Your task to perform on an android device: search for starred emails in the gmail app Image 0: 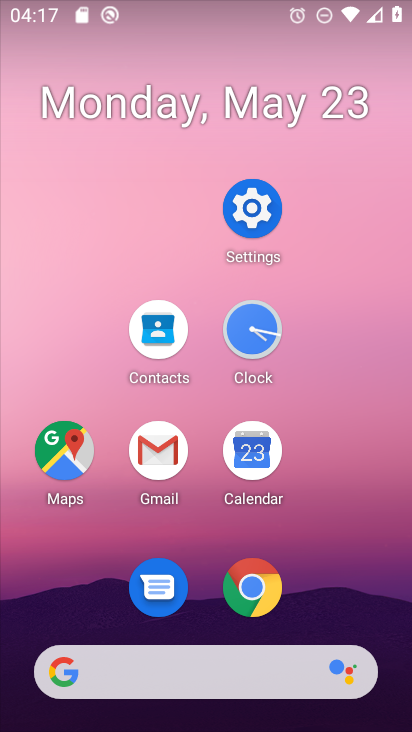
Step 0: click (150, 458)
Your task to perform on an android device: search for starred emails in the gmail app Image 1: 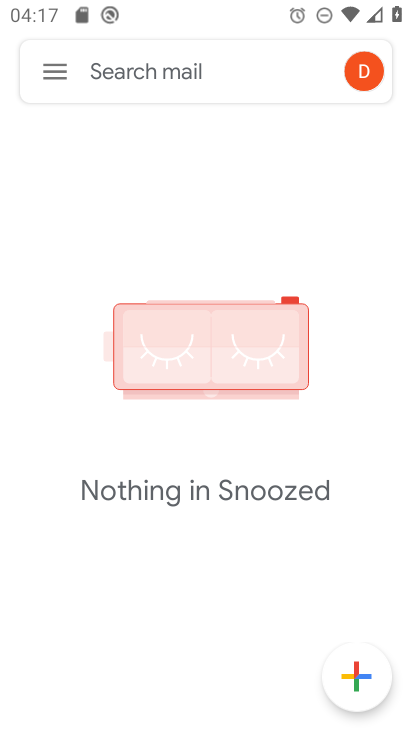
Step 1: click (68, 84)
Your task to perform on an android device: search for starred emails in the gmail app Image 2: 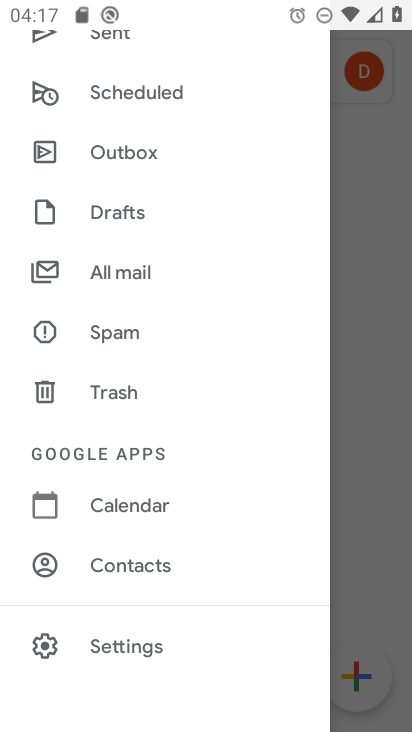
Step 2: drag from (119, 493) to (148, 362)
Your task to perform on an android device: search for starred emails in the gmail app Image 3: 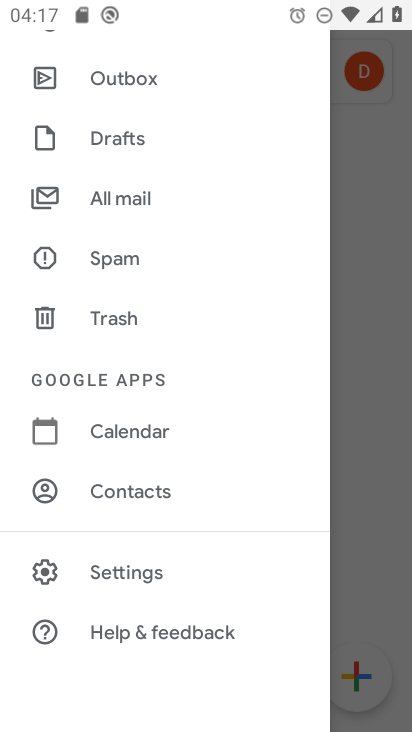
Step 3: drag from (119, 95) to (141, 692)
Your task to perform on an android device: search for starred emails in the gmail app Image 4: 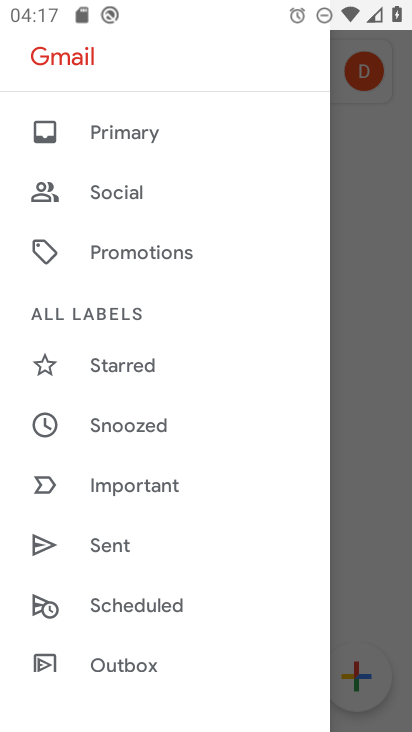
Step 4: click (143, 344)
Your task to perform on an android device: search for starred emails in the gmail app Image 5: 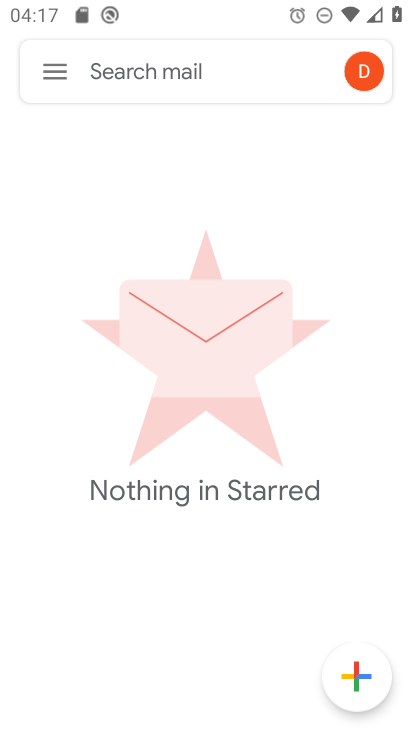
Step 5: task complete